Your task to perform on an android device: refresh tabs in the chrome app Image 0: 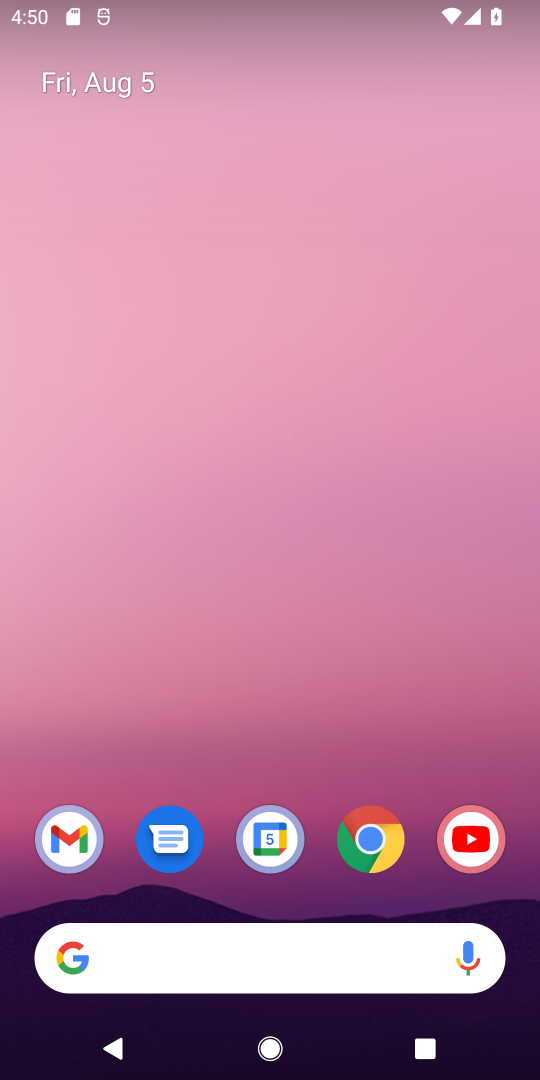
Step 0: click (365, 824)
Your task to perform on an android device: refresh tabs in the chrome app Image 1: 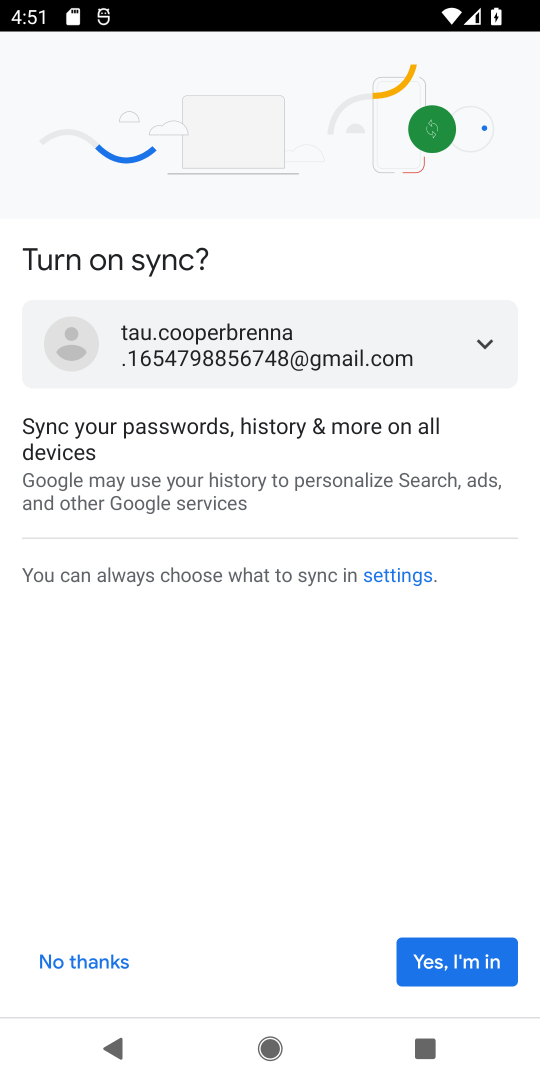
Step 1: click (484, 954)
Your task to perform on an android device: refresh tabs in the chrome app Image 2: 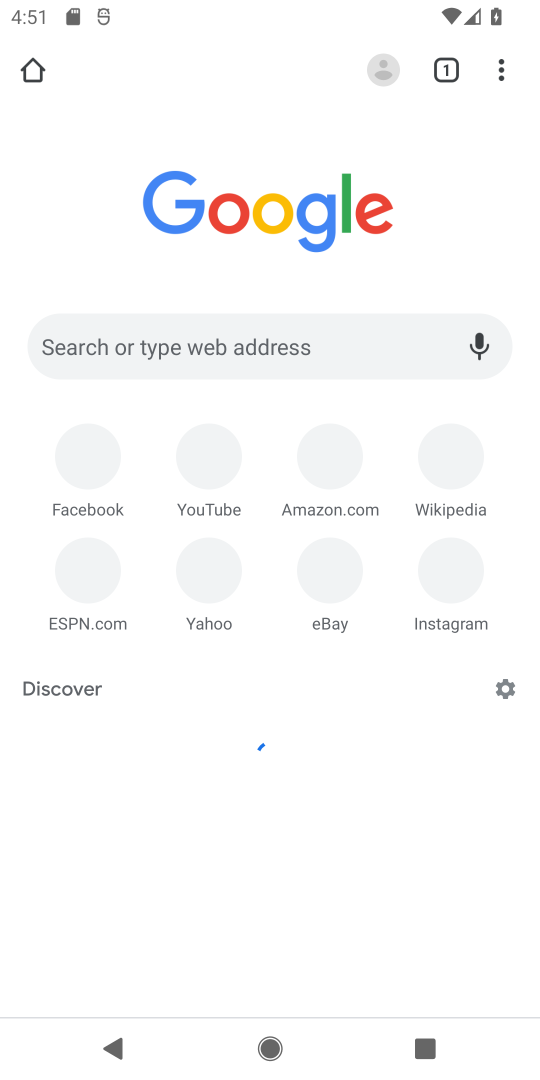
Step 2: click (508, 60)
Your task to perform on an android device: refresh tabs in the chrome app Image 3: 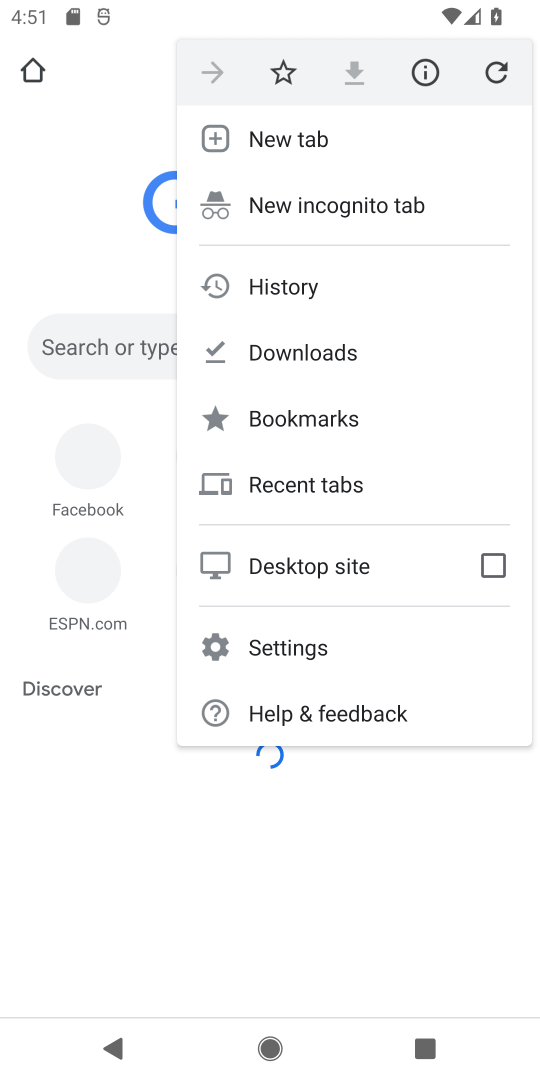
Step 3: click (480, 70)
Your task to perform on an android device: refresh tabs in the chrome app Image 4: 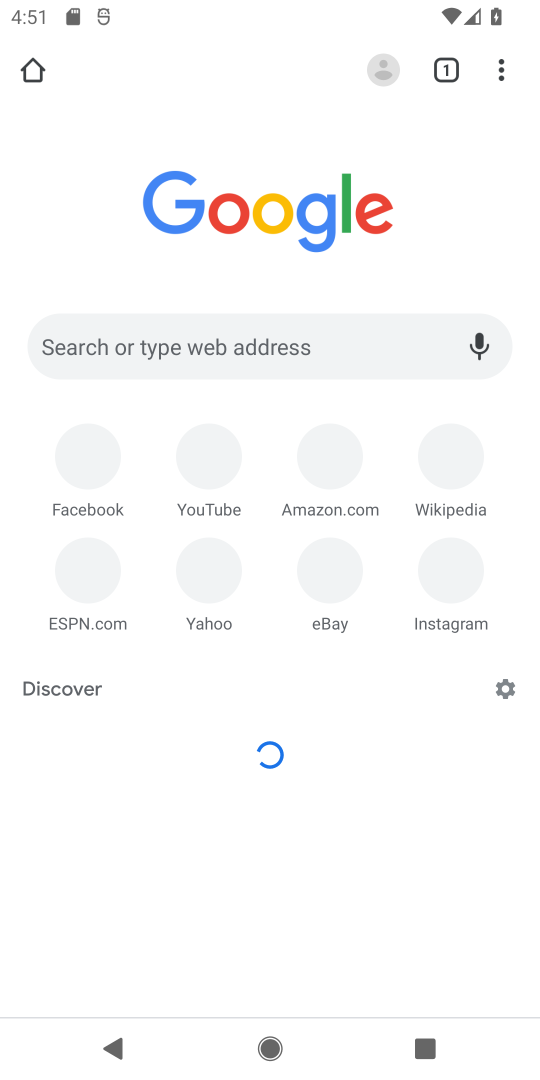
Step 4: task complete